Your task to perform on an android device: Go to ESPN.com Image 0: 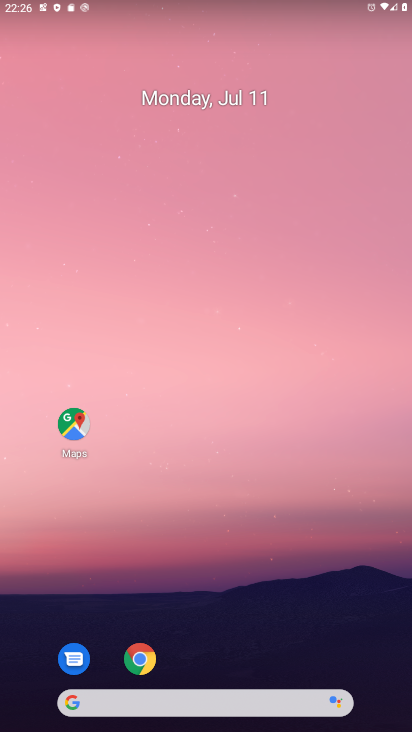
Step 0: drag from (178, 676) to (341, 98)
Your task to perform on an android device: Go to ESPN.com Image 1: 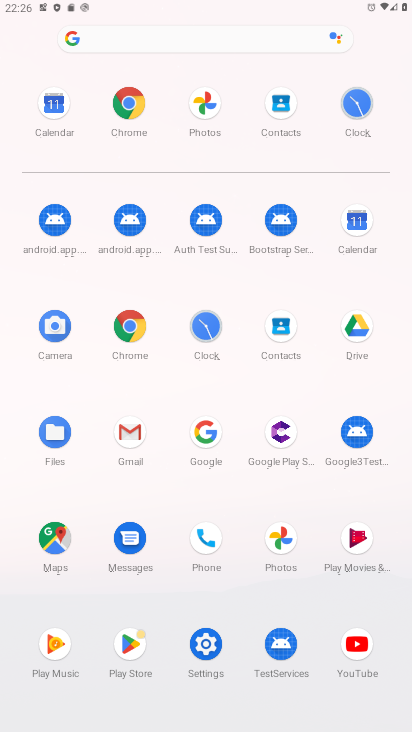
Step 1: click (131, 331)
Your task to perform on an android device: Go to ESPN.com Image 2: 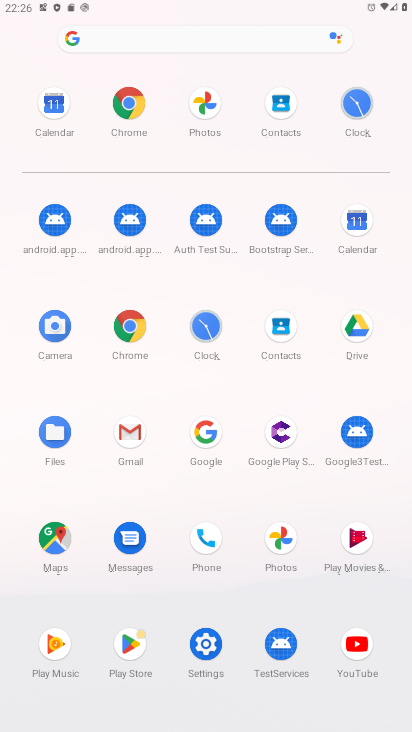
Step 2: click (173, 33)
Your task to perform on an android device: Go to ESPN.com Image 3: 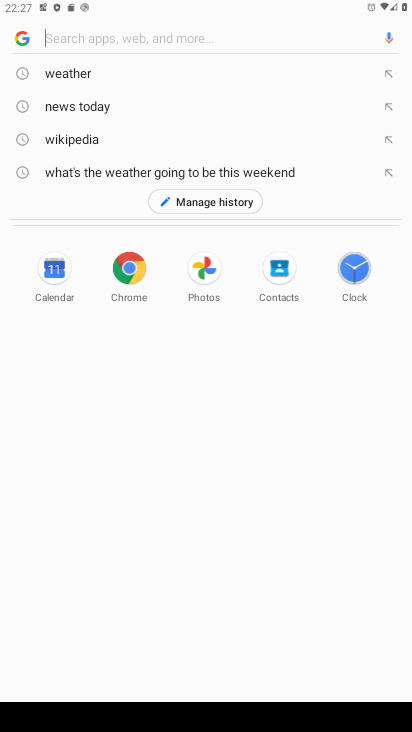
Step 3: type "espn.com"
Your task to perform on an android device: Go to ESPN.com Image 4: 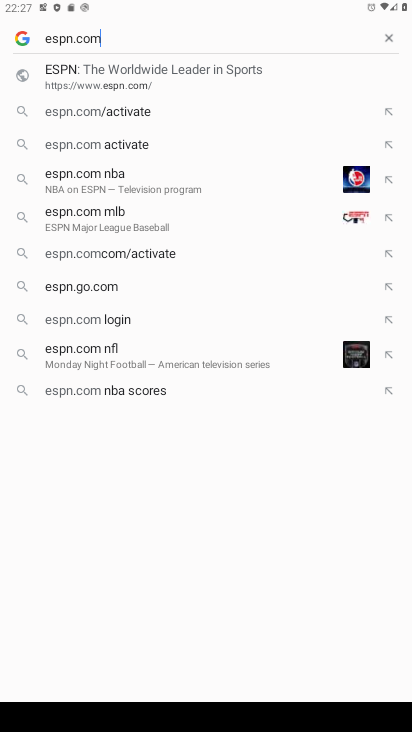
Step 4: click (115, 72)
Your task to perform on an android device: Go to ESPN.com Image 5: 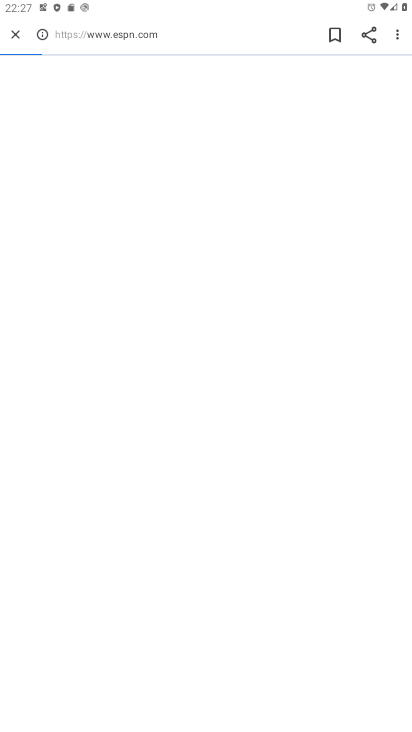
Step 5: task complete